Your task to perform on an android device: change notifications settings Image 0: 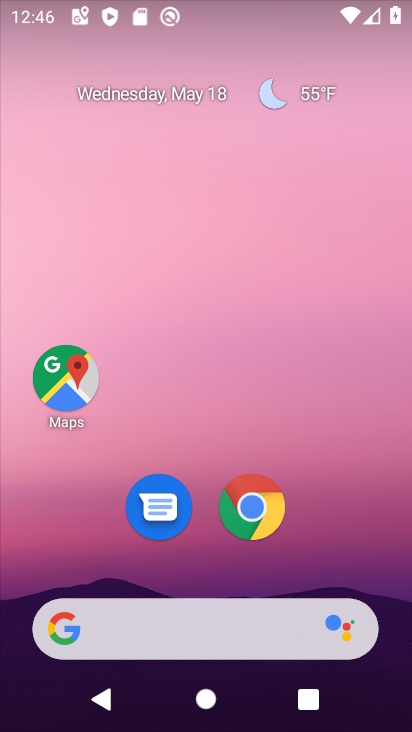
Step 0: drag from (373, 476) to (328, 130)
Your task to perform on an android device: change notifications settings Image 1: 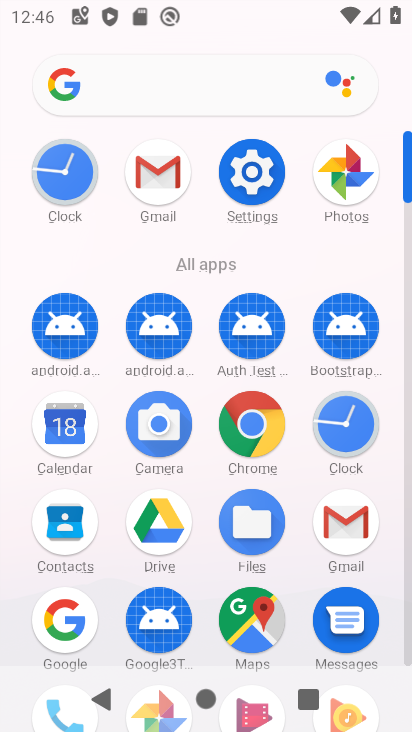
Step 1: click (408, 647)
Your task to perform on an android device: change notifications settings Image 2: 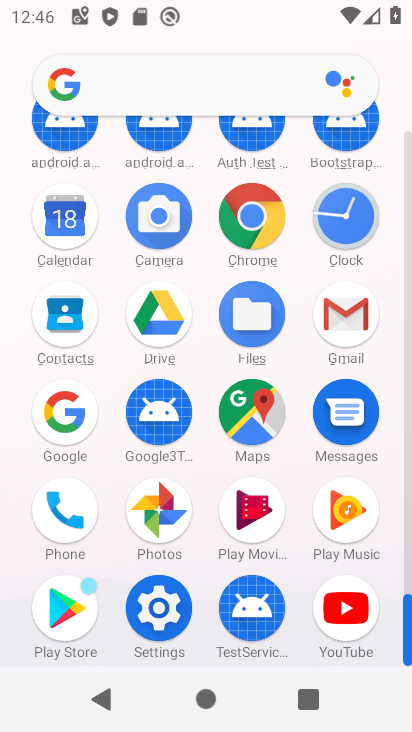
Step 2: click (159, 604)
Your task to perform on an android device: change notifications settings Image 3: 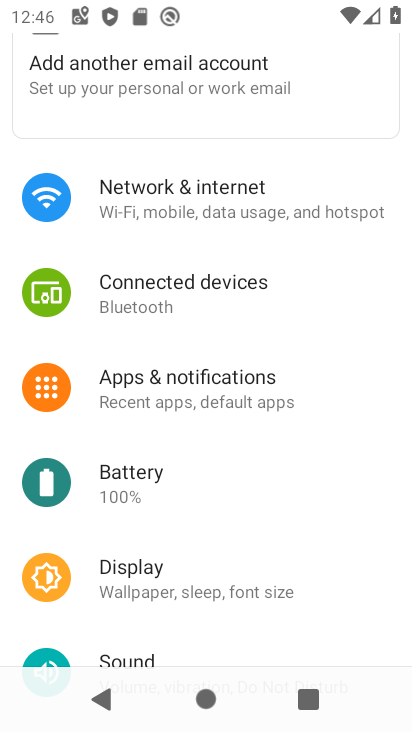
Step 3: click (193, 373)
Your task to perform on an android device: change notifications settings Image 4: 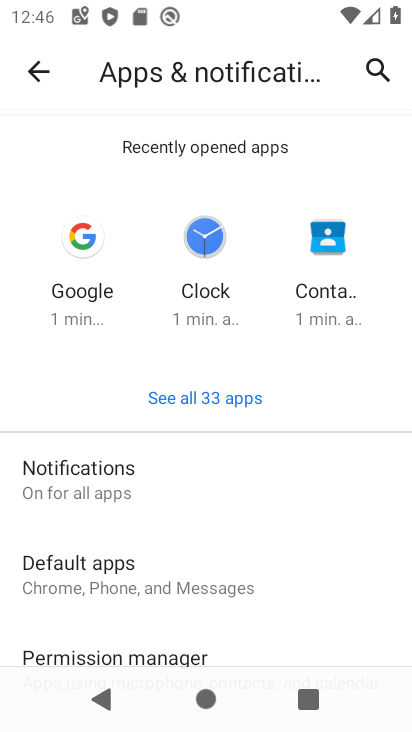
Step 4: click (61, 465)
Your task to perform on an android device: change notifications settings Image 5: 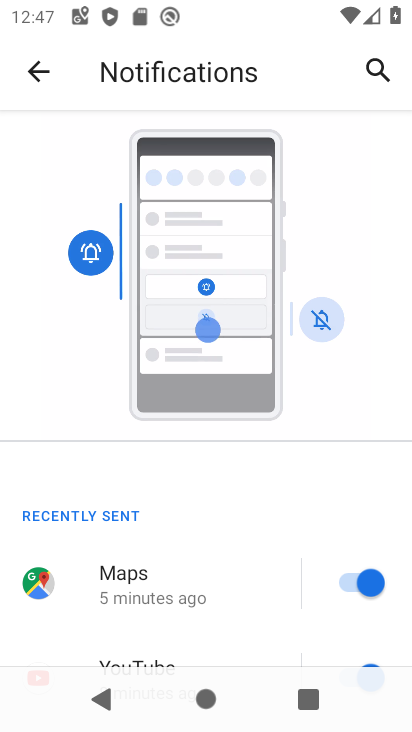
Step 5: drag from (312, 619) to (251, 102)
Your task to perform on an android device: change notifications settings Image 6: 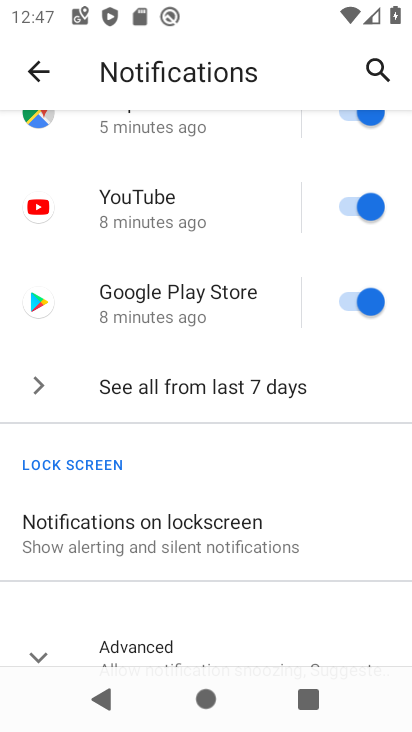
Step 6: drag from (289, 579) to (279, 157)
Your task to perform on an android device: change notifications settings Image 7: 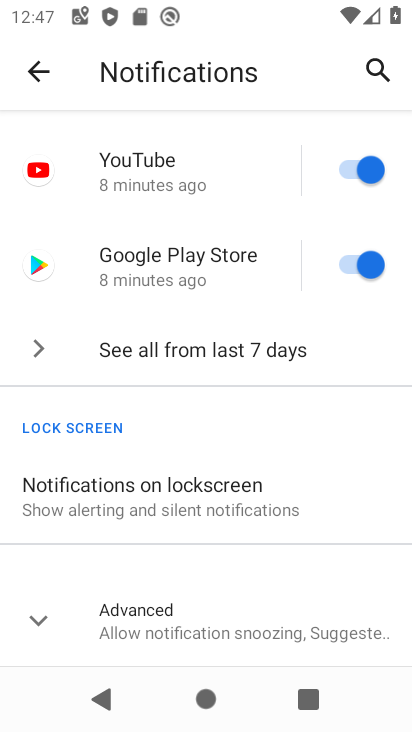
Step 7: click (32, 623)
Your task to perform on an android device: change notifications settings Image 8: 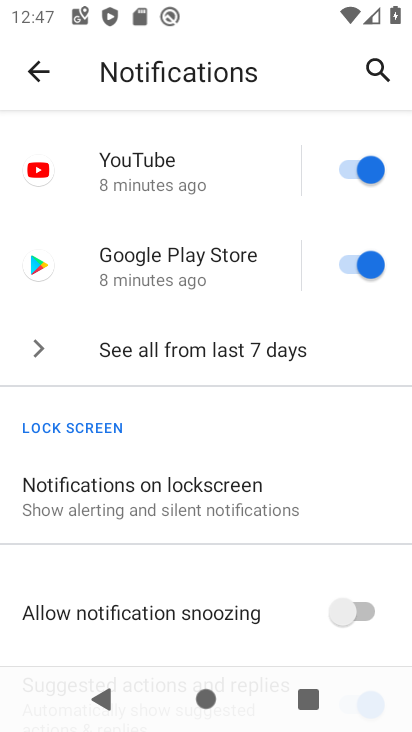
Step 8: click (377, 608)
Your task to perform on an android device: change notifications settings Image 9: 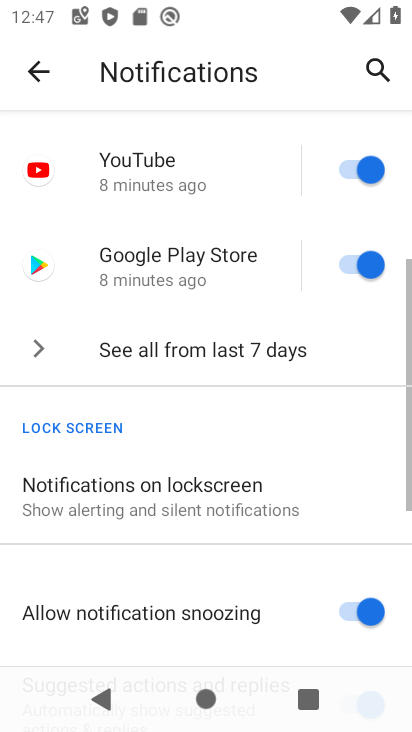
Step 9: drag from (282, 614) to (249, 197)
Your task to perform on an android device: change notifications settings Image 10: 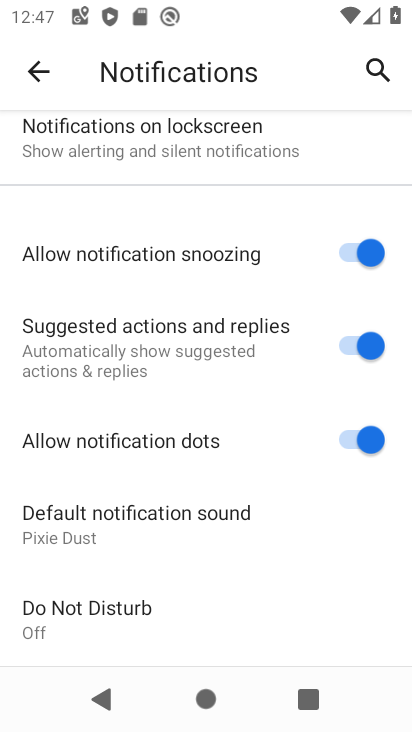
Step 10: click (342, 439)
Your task to perform on an android device: change notifications settings Image 11: 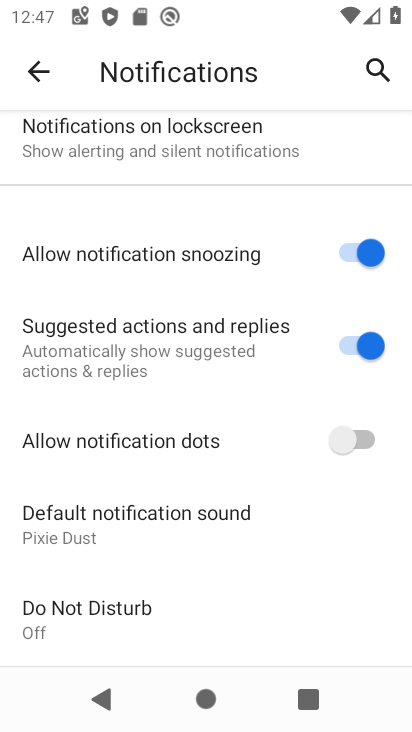
Step 11: task complete